Your task to perform on an android device: Add "macbook" to the cart on amazon Image 0: 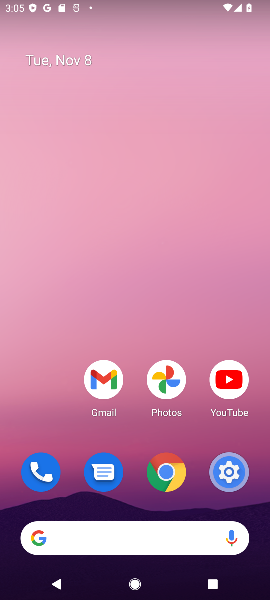
Step 0: click (128, 548)
Your task to perform on an android device: Add "macbook" to the cart on amazon Image 1: 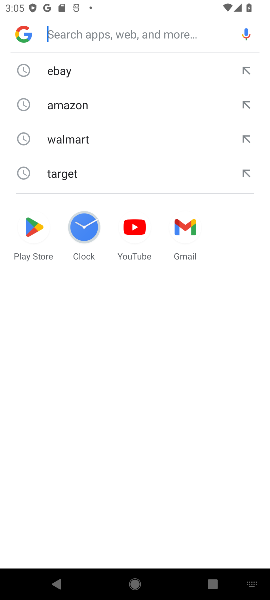
Step 1: click (99, 105)
Your task to perform on an android device: Add "macbook" to the cart on amazon Image 2: 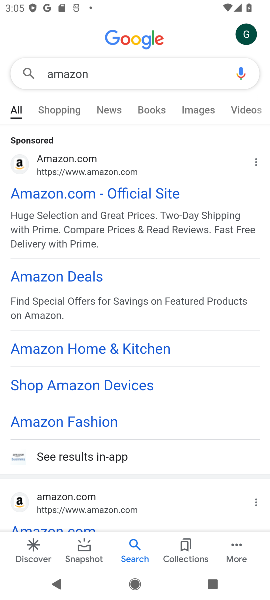
Step 2: click (76, 194)
Your task to perform on an android device: Add "macbook" to the cart on amazon Image 3: 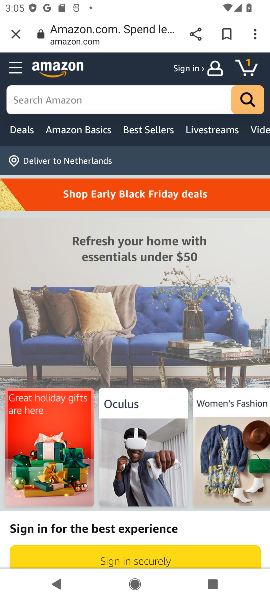
Step 3: click (29, 101)
Your task to perform on an android device: Add "macbook" to the cart on amazon Image 4: 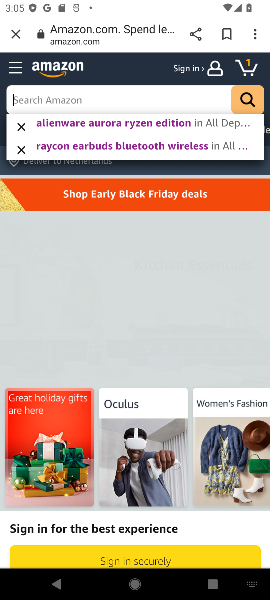
Step 4: type "macbook"
Your task to perform on an android device: Add "macbook" to the cart on amazon Image 5: 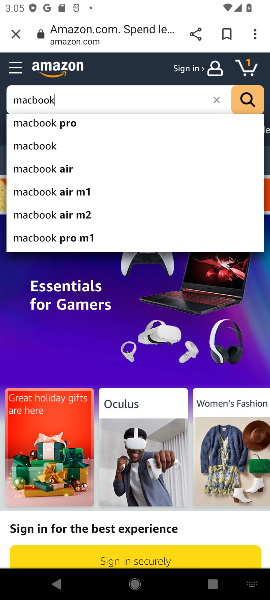
Step 5: click (256, 100)
Your task to perform on an android device: Add "macbook" to the cart on amazon Image 6: 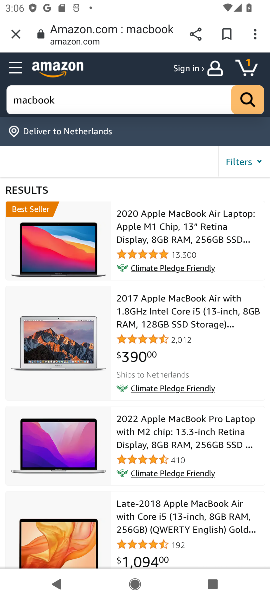
Step 6: click (135, 223)
Your task to perform on an android device: Add "macbook" to the cart on amazon Image 7: 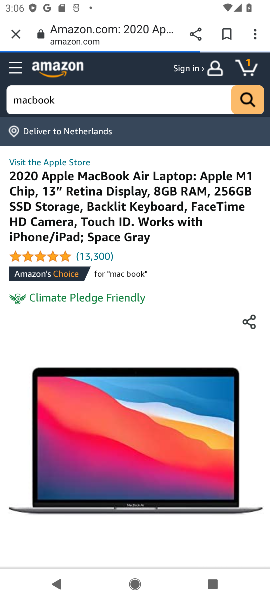
Step 7: task complete